Your task to perform on an android device: Is it going to rain this weekend? Image 0: 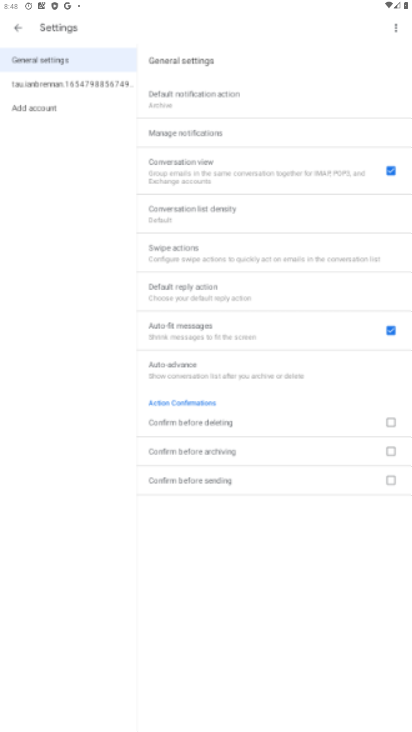
Step 0: drag from (291, 536) to (321, 137)
Your task to perform on an android device: Is it going to rain this weekend? Image 1: 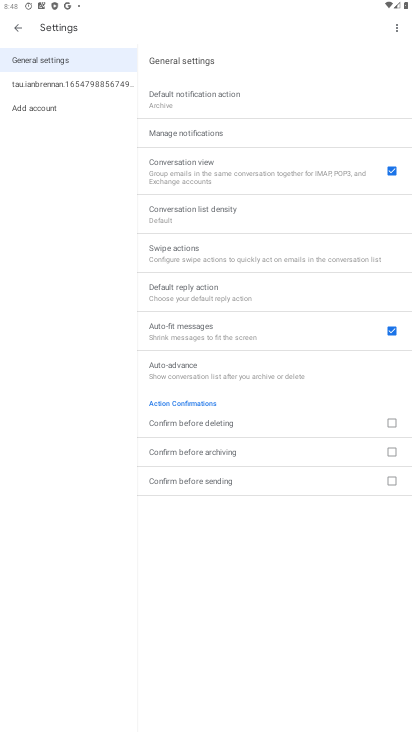
Step 1: press home button
Your task to perform on an android device: Is it going to rain this weekend? Image 2: 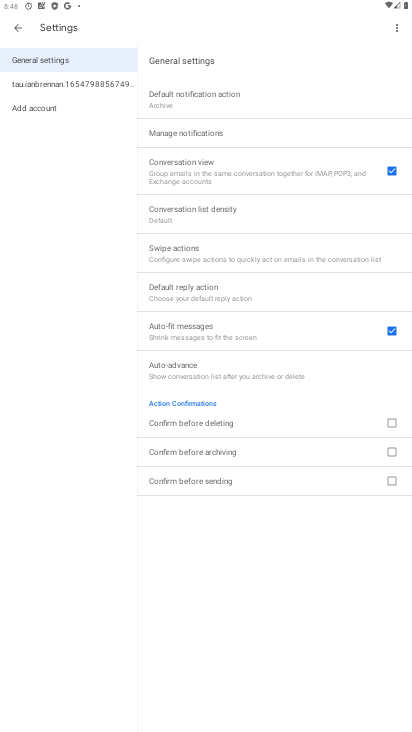
Step 2: press home button
Your task to perform on an android device: Is it going to rain this weekend? Image 3: 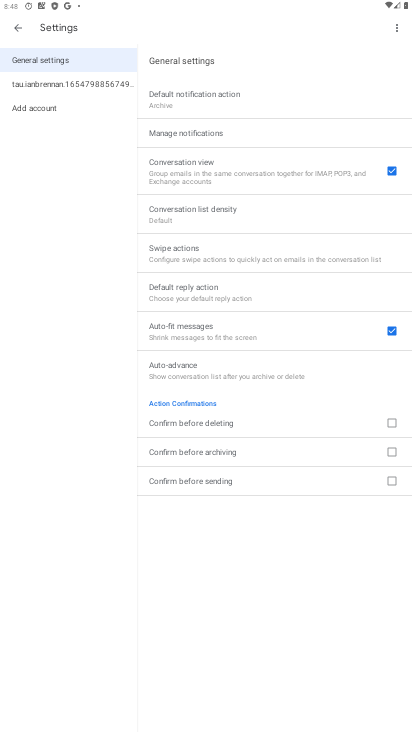
Step 3: drag from (213, 609) to (217, 69)
Your task to perform on an android device: Is it going to rain this weekend? Image 4: 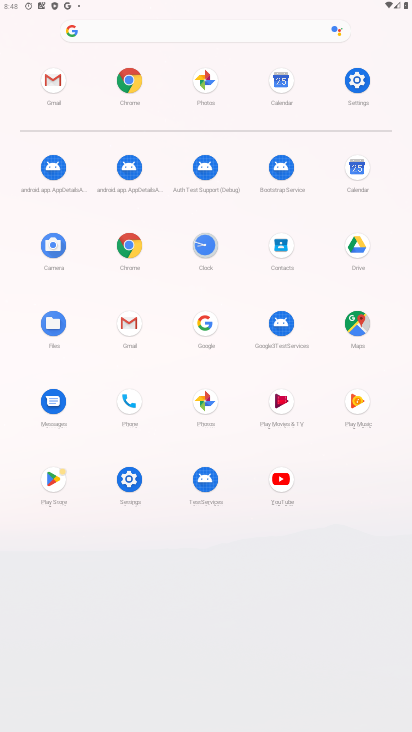
Step 4: click (168, 25)
Your task to perform on an android device: Is it going to rain this weekend? Image 5: 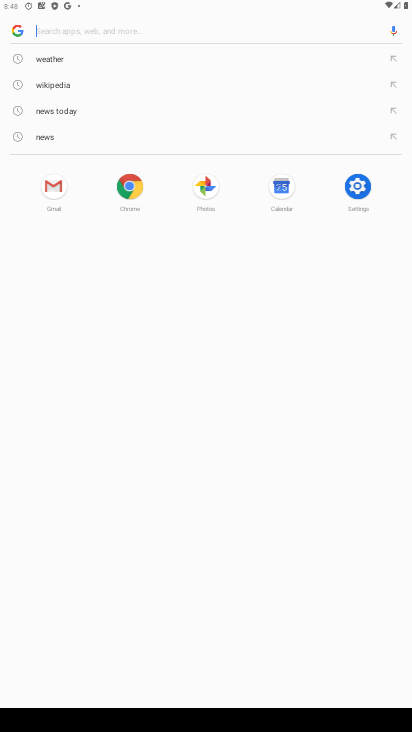
Step 5: type "Is it going to rain this weekend?"
Your task to perform on an android device: Is it going to rain this weekend? Image 6: 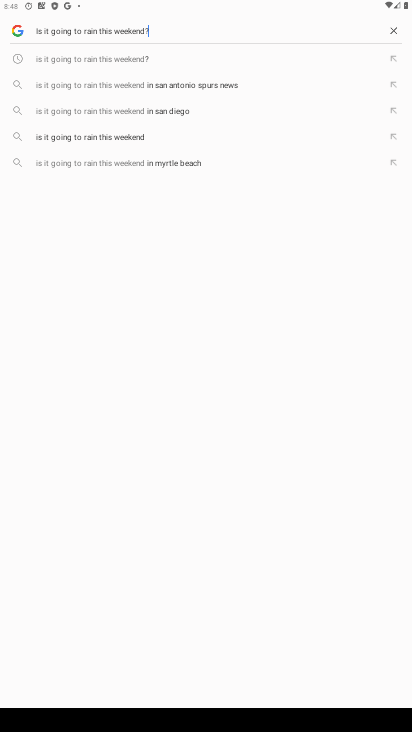
Step 6: type ""
Your task to perform on an android device: Is it going to rain this weekend? Image 7: 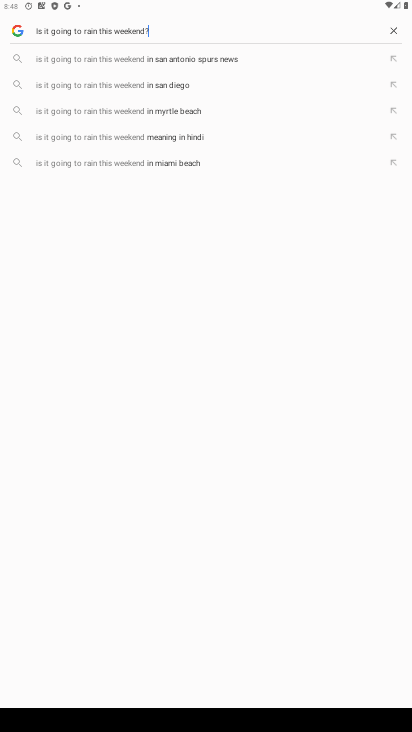
Step 7: click (142, 81)
Your task to perform on an android device: Is it going to rain this weekend? Image 8: 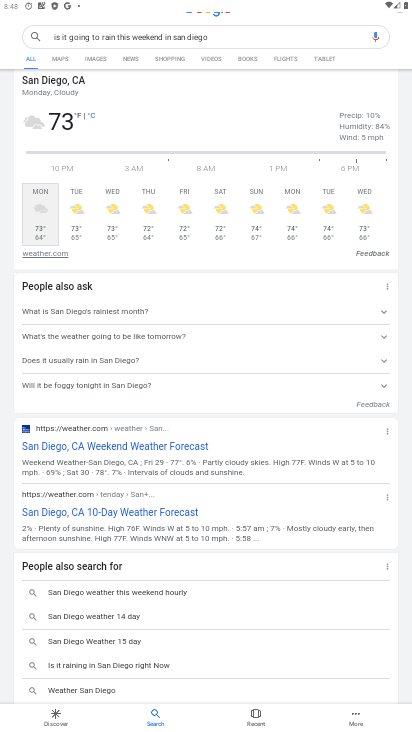
Step 8: task complete